Your task to perform on an android device: Set the phone to "Do not disturb". Image 0: 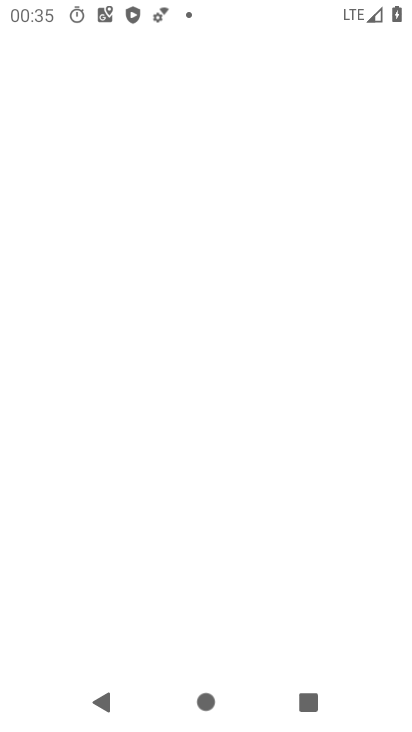
Step 0: drag from (226, 606) to (252, 313)
Your task to perform on an android device: Set the phone to "Do not disturb". Image 1: 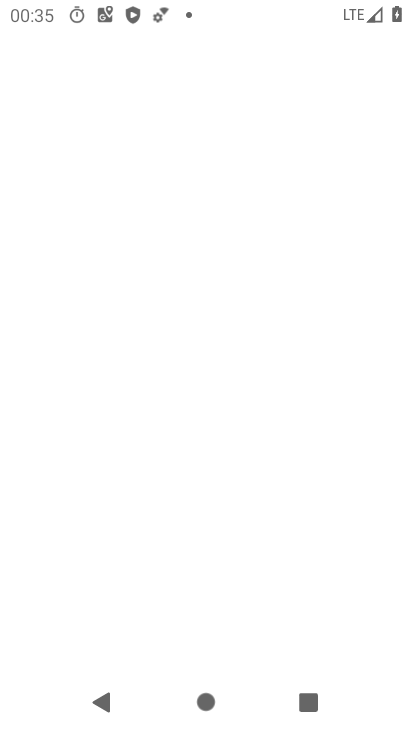
Step 1: press home button
Your task to perform on an android device: Set the phone to "Do not disturb". Image 2: 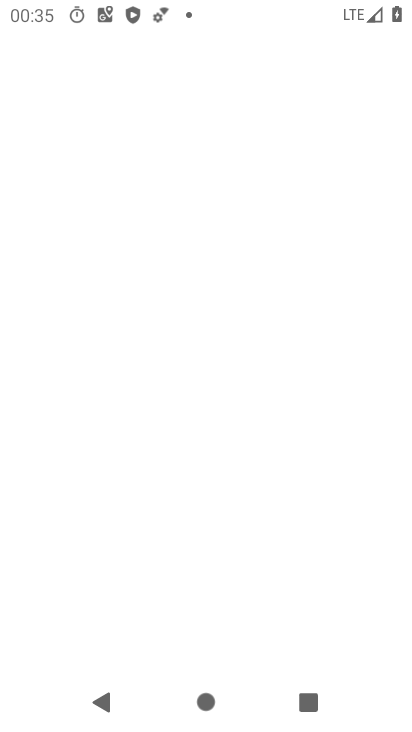
Step 2: press home button
Your task to perform on an android device: Set the phone to "Do not disturb". Image 3: 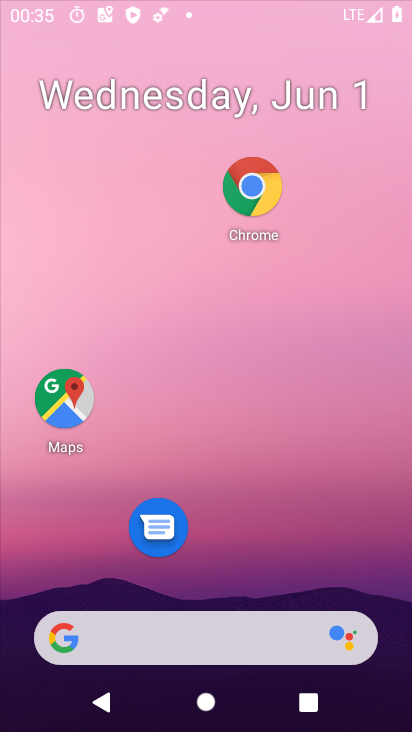
Step 3: press home button
Your task to perform on an android device: Set the phone to "Do not disturb". Image 4: 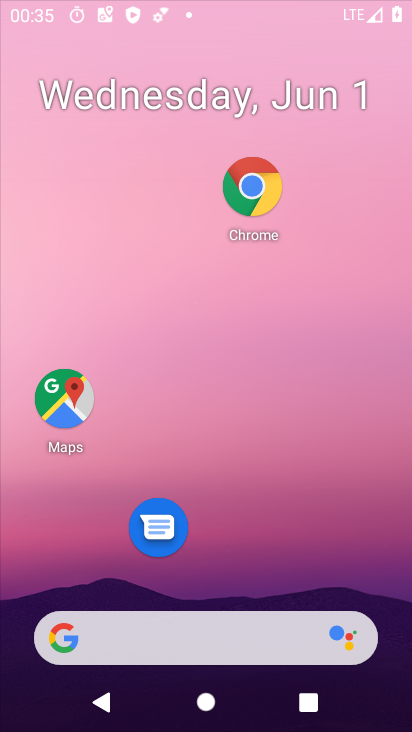
Step 4: drag from (162, 623) to (196, 358)
Your task to perform on an android device: Set the phone to "Do not disturb". Image 5: 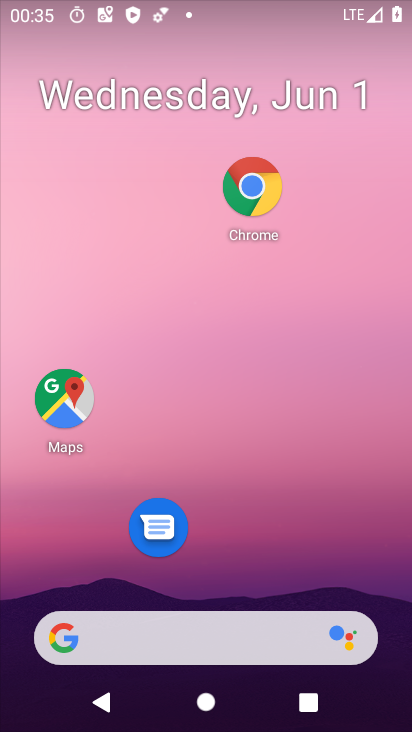
Step 5: drag from (170, 588) to (203, 130)
Your task to perform on an android device: Set the phone to "Do not disturb". Image 6: 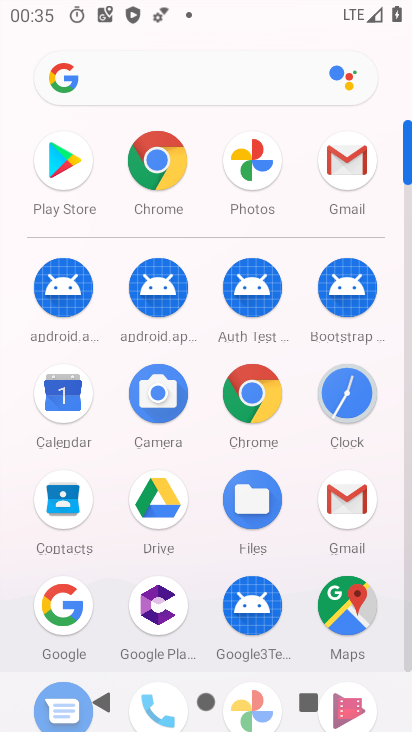
Step 6: drag from (207, 560) to (212, 244)
Your task to perform on an android device: Set the phone to "Do not disturb". Image 7: 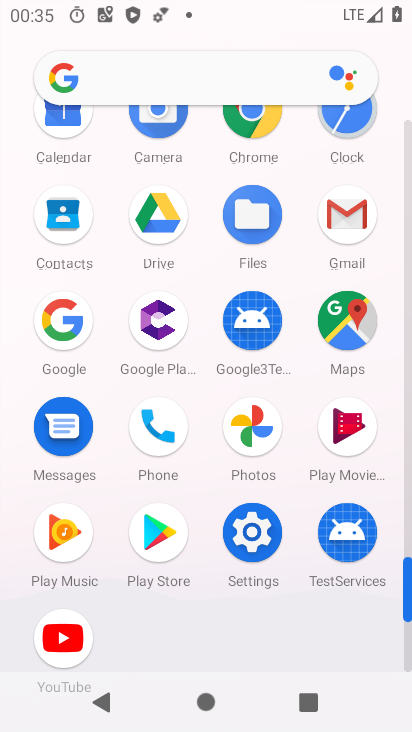
Step 7: click (250, 536)
Your task to perform on an android device: Set the phone to "Do not disturb". Image 8: 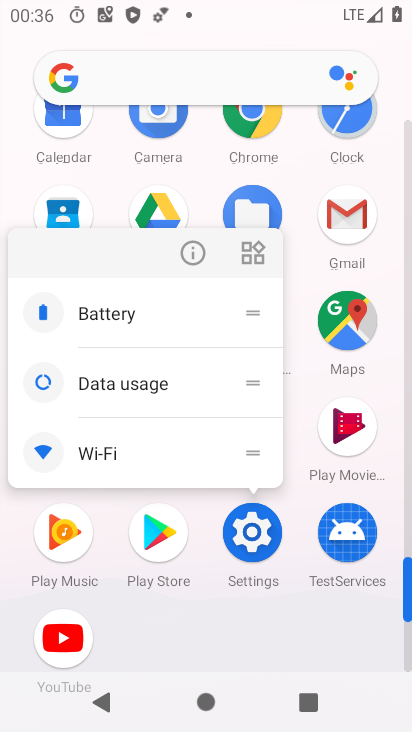
Step 8: click (196, 236)
Your task to perform on an android device: Set the phone to "Do not disturb". Image 9: 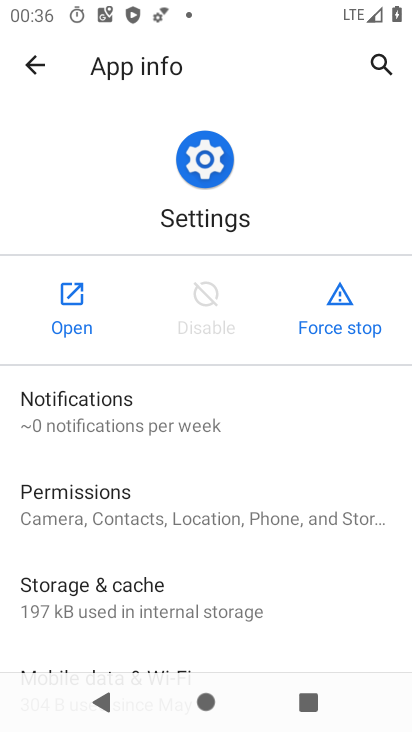
Step 9: click (71, 317)
Your task to perform on an android device: Set the phone to "Do not disturb". Image 10: 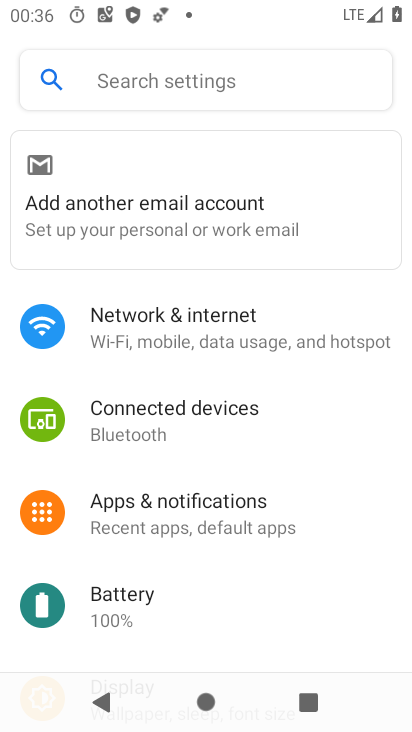
Step 10: drag from (238, 603) to (329, 353)
Your task to perform on an android device: Set the phone to "Do not disturb". Image 11: 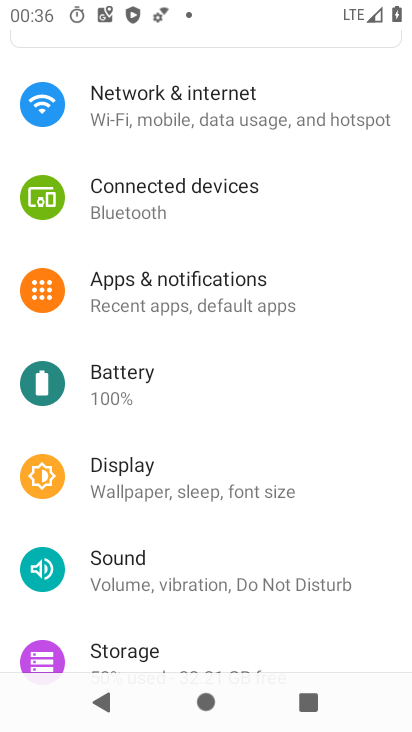
Step 11: click (195, 289)
Your task to perform on an android device: Set the phone to "Do not disturb". Image 12: 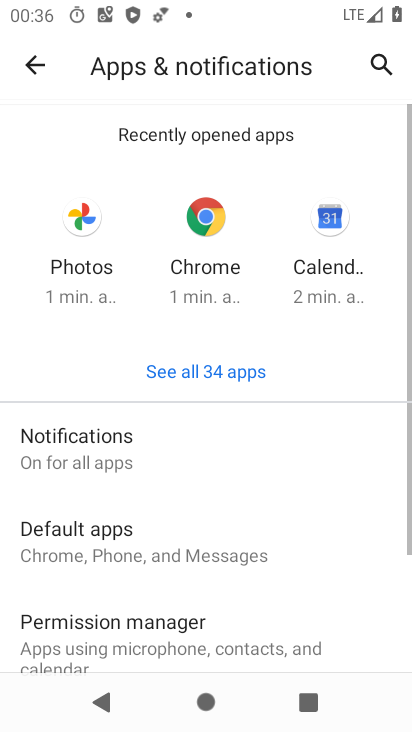
Step 12: click (181, 445)
Your task to perform on an android device: Set the phone to "Do not disturb". Image 13: 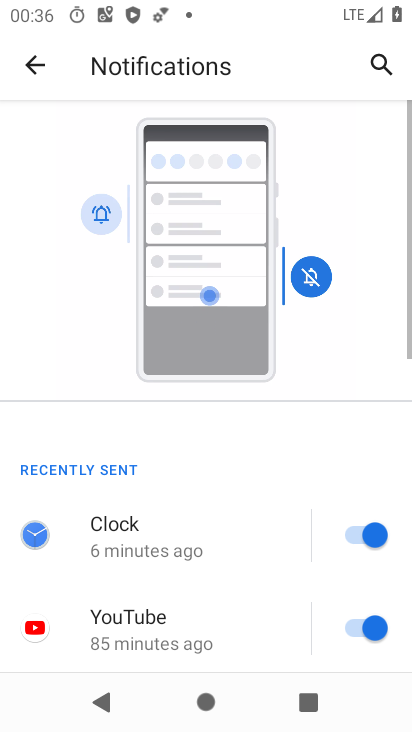
Step 13: drag from (191, 481) to (214, 178)
Your task to perform on an android device: Set the phone to "Do not disturb". Image 14: 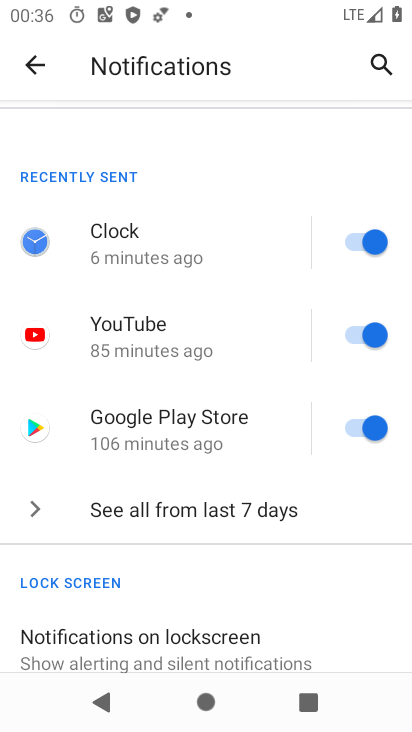
Step 14: drag from (202, 605) to (287, 264)
Your task to perform on an android device: Set the phone to "Do not disturb". Image 15: 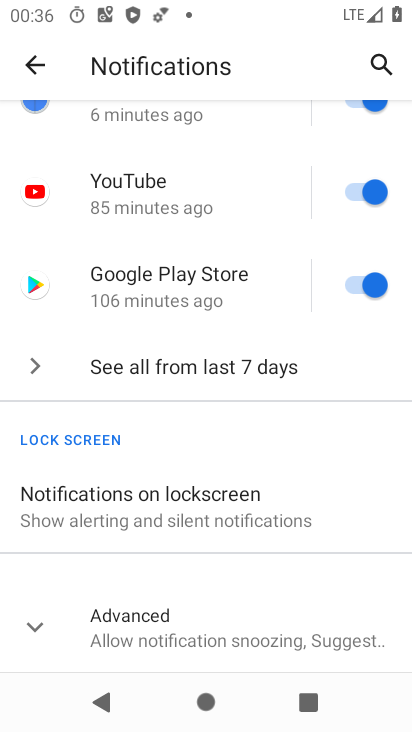
Step 15: click (159, 602)
Your task to perform on an android device: Set the phone to "Do not disturb". Image 16: 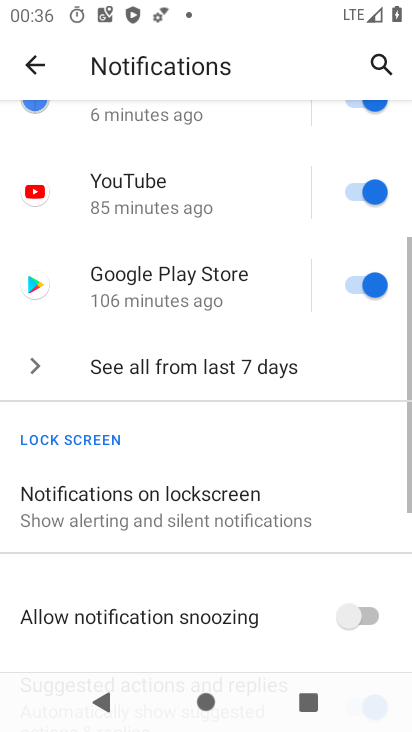
Step 16: drag from (156, 589) to (196, 186)
Your task to perform on an android device: Set the phone to "Do not disturb". Image 17: 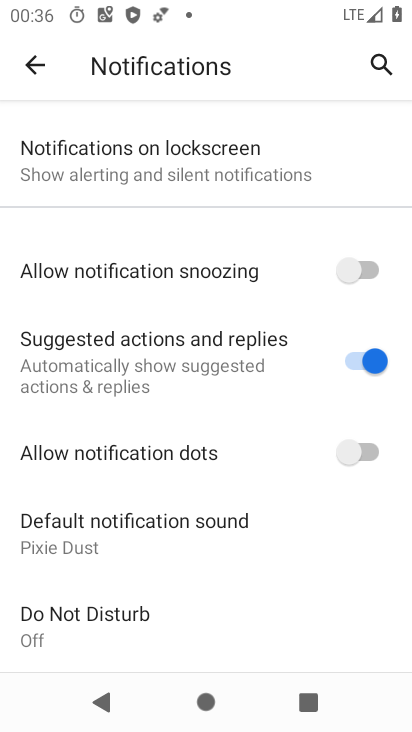
Step 17: drag from (185, 569) to (227, 274)
Your task to perform on an android device: Set the phone to "Do not disturb". Image 18: 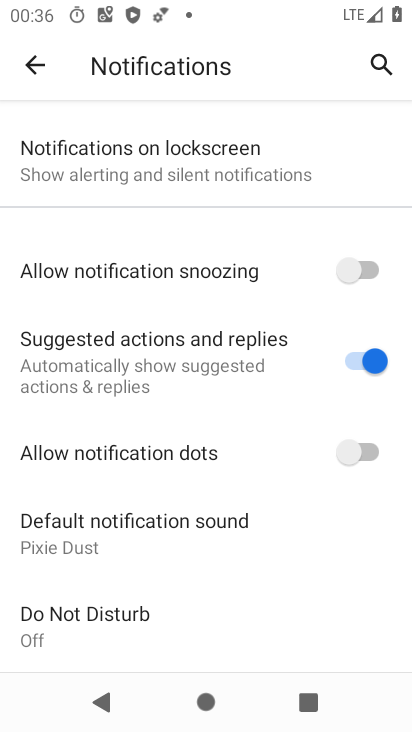
Step 18: click (160, 627)
Your task to perform on an android device: Set the phone to "Do not disturb". Image 19: 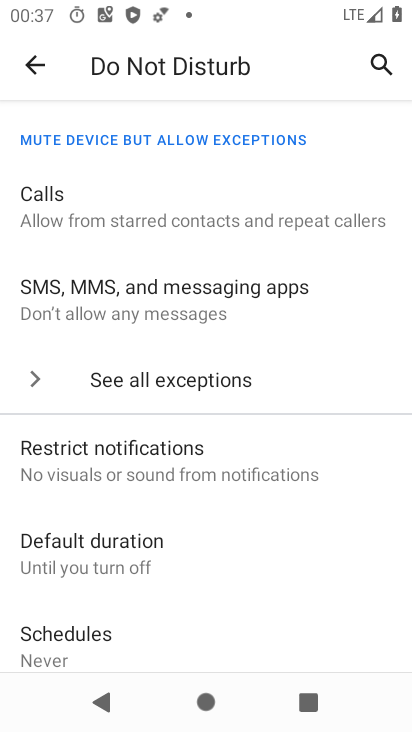
Step 19: drag from (150, 465) to (184, 226)
Your task to perform on an android device: Set the phone to "Do not disturb". Image 20: 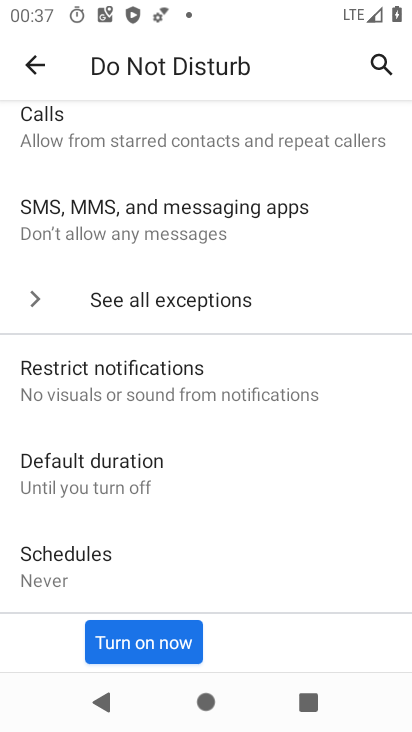
Step 20: click (117, 642)
Your task to perform on an android device: Set the phone to "Do not disturb". Image 21: 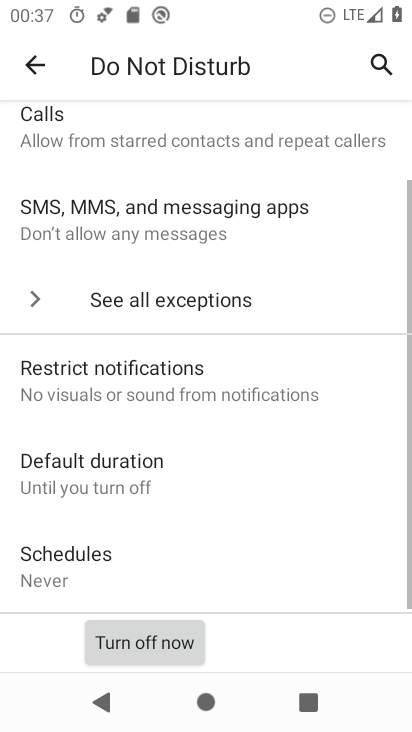
Step 21: task complete